Your task to perform on an android device: open the mobile data screen to see how much data has been used Image 0: 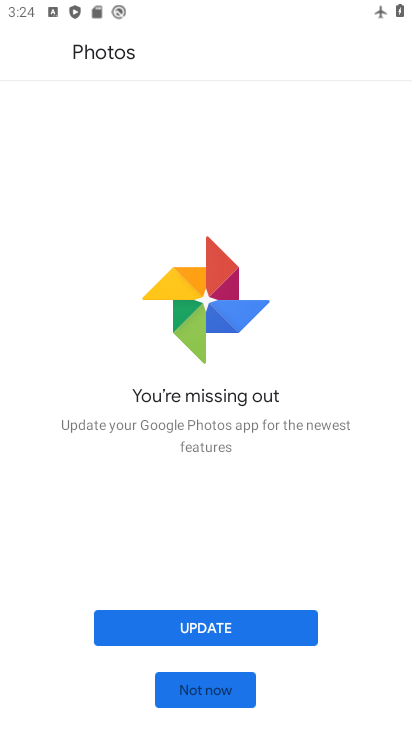
Step 0: press home button
Your task to perform on an android device: open the mobile data screen to see how much data has been used Image 1: 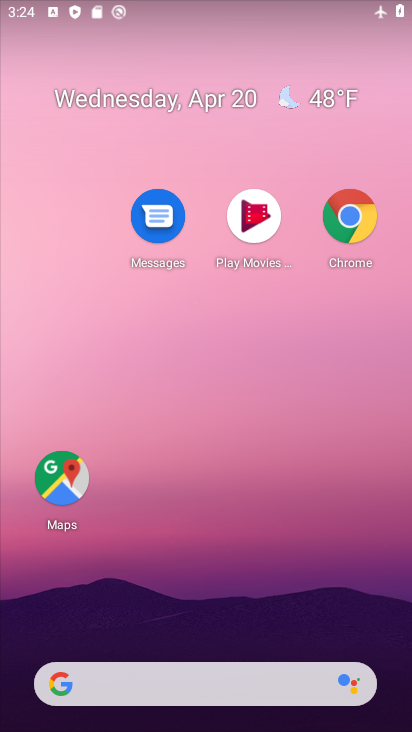
Step 1: drag from (295, 566) to (302, 40)
Your task to perform on an android device: open the mobile data screen to see how much data has been used Image 2: 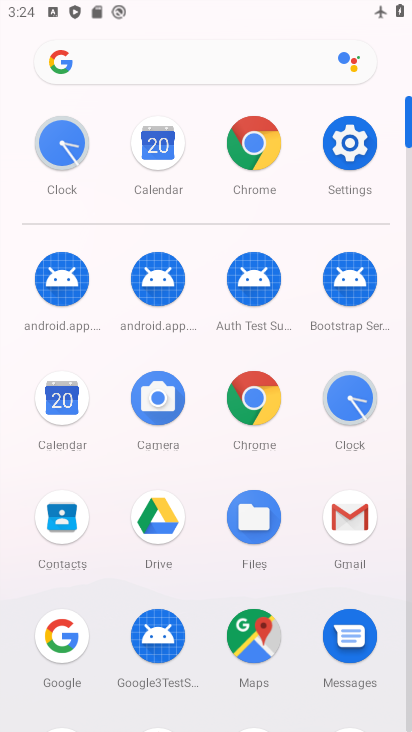
Step 2: click (363, 166)
Your task to perform on an android device: open the mobile data screen to see how much data has been used Image 3: 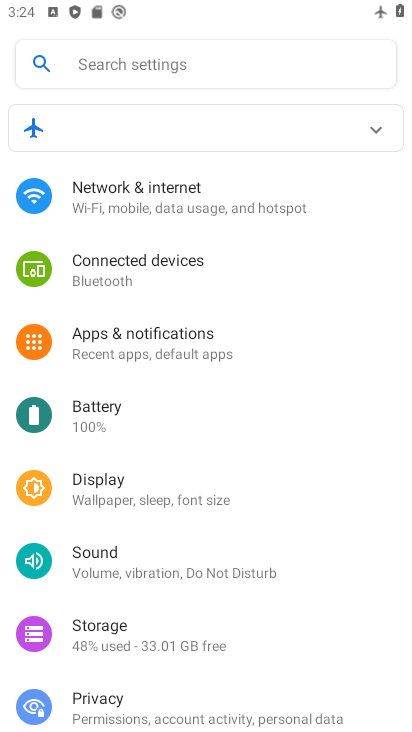
Step 3: click (142, 214)
Your task to perform on an android device: open the mobile data screen to see how much data has been used Image 4: 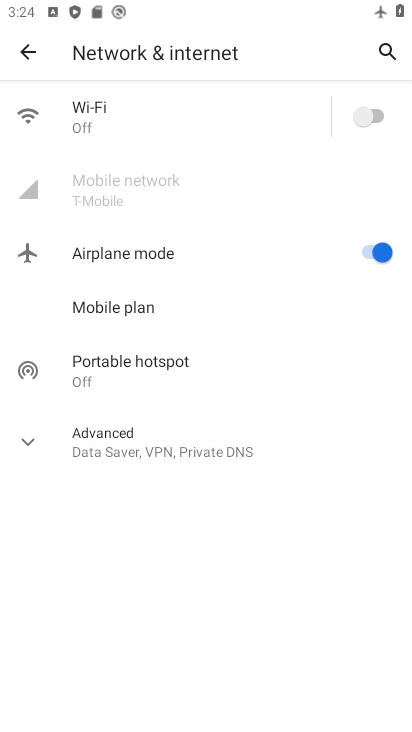
Step 4: click (154, 311)
Your task to perform on an android device: open the mobile data screen to see how much data has been used Image 5: 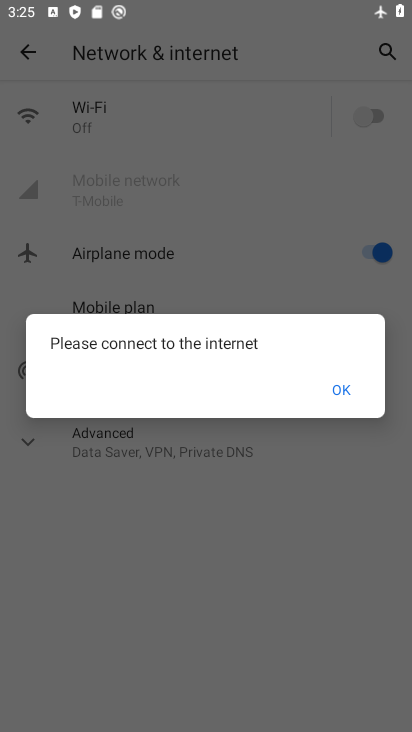
Step 5: click (146, 271)
Your task to perform on an android device: open the mobile data screen to see how much data has been used Image 6: 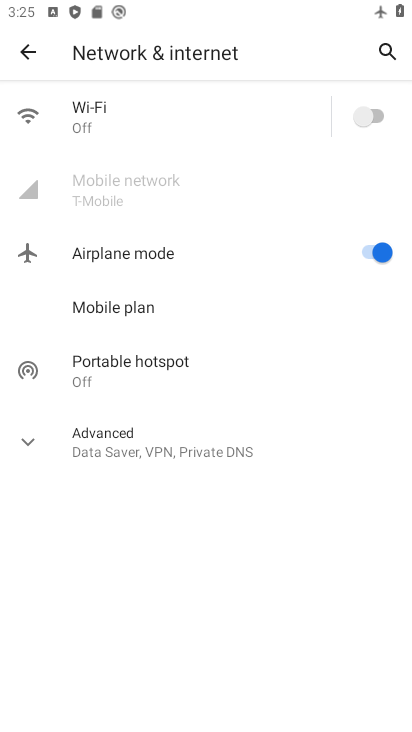
Step 6: click (337, 385)
Your task to perform on an android device: open the mobile data screen to see how much data has been used Image 7: 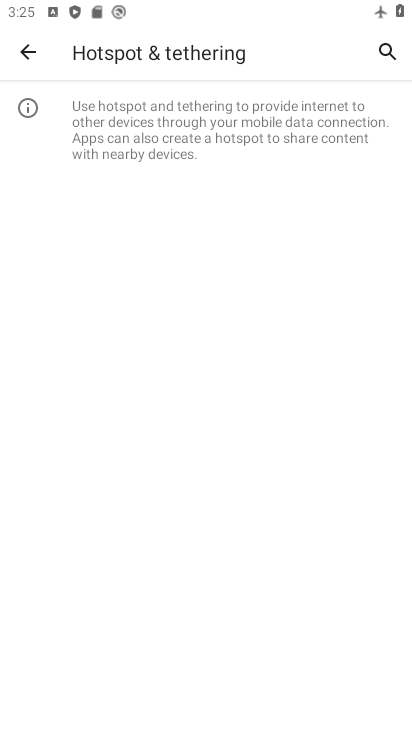
Step 7: click (23, 48)
Your task to perform on an android device: open the mobile data screen to see how much data has been used Image 8: 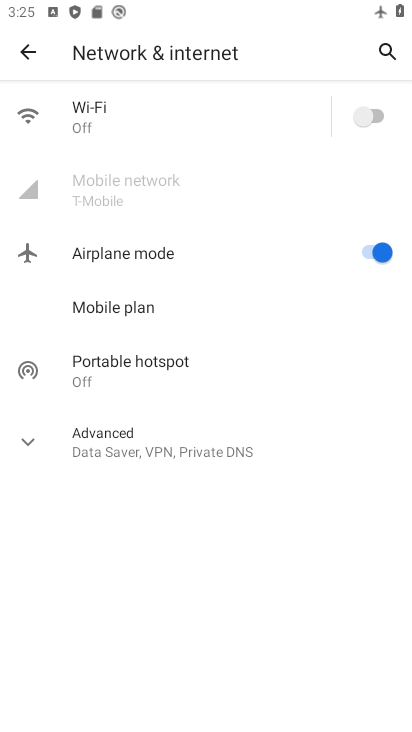
Step 8: click (377, 258)
Your task to perform on an android device: open the mobile data screen to see how much data has been used Image 9: 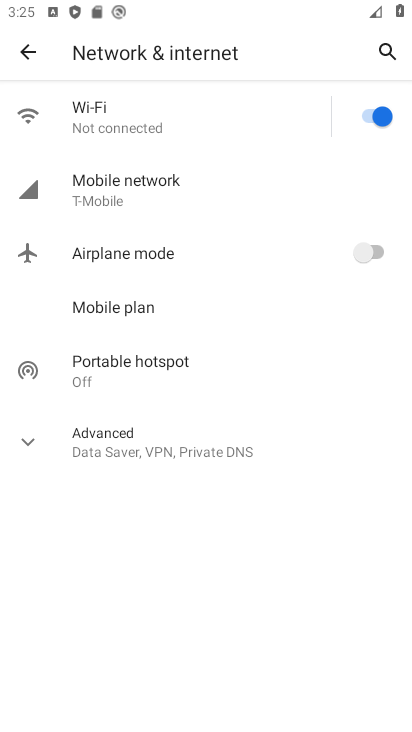
Step 9: click (269, 195)
Your task to perform on an android device: open the mobile data screen to see how much data has been used Image 10: 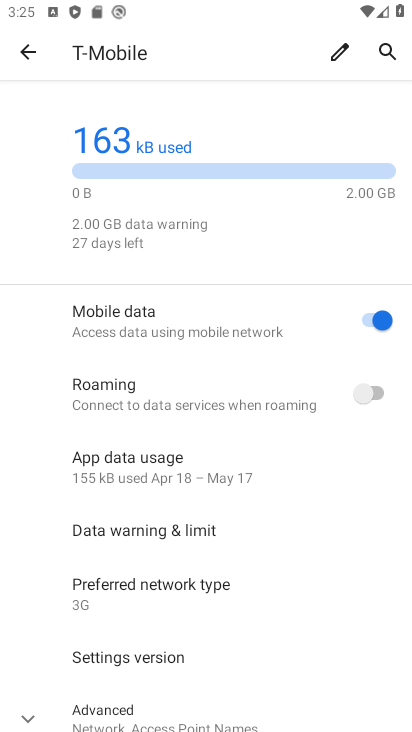
Step 10: click (196, 471)
Your task to perform on an android device: open the mobile data screen to see how much data has been used Image 11: 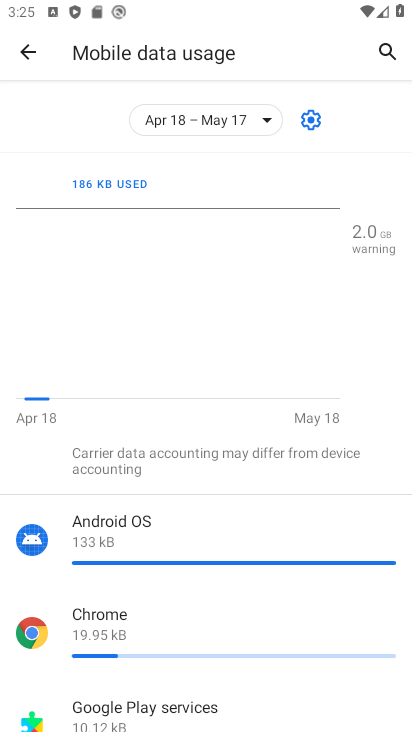
Step 11: task complete